Your task to perform on an android device: set the timer Image 0: 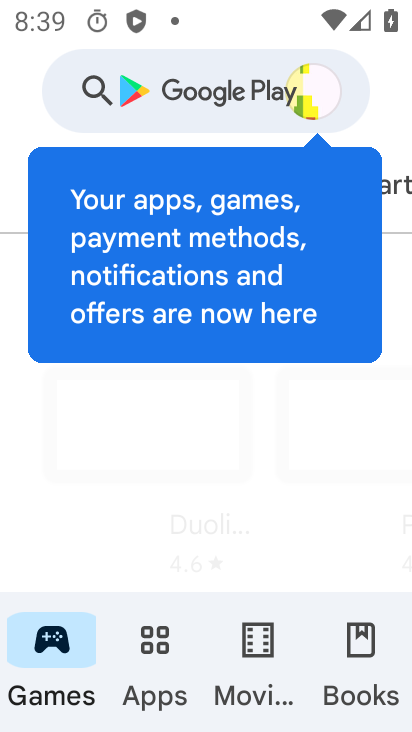
Step 0: drag from (280, 580) to (215, 112)
Your task to perform on an android device: set the timer Image 1: 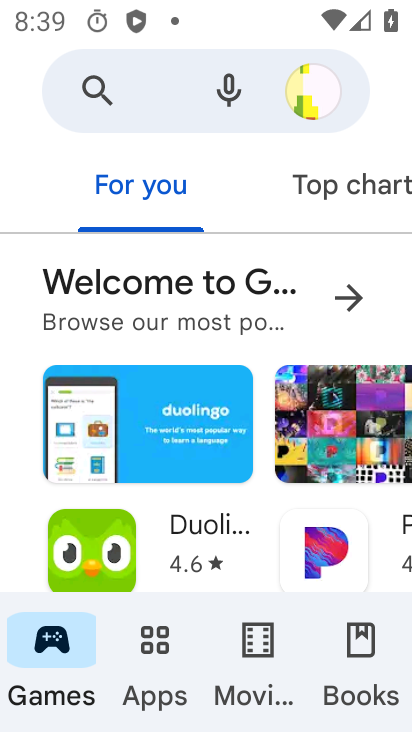
Step 1: press back button
Your task to perform on an android device: set the timer Image 2: 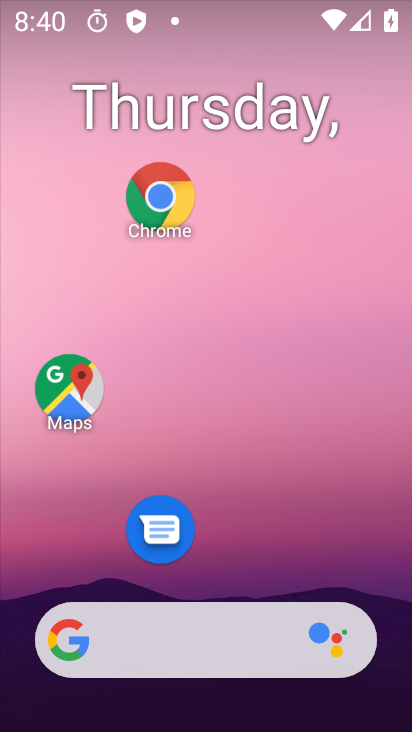
Step 2: click (244, 49)
Your task to perform on an android device: set the timer Image 3: 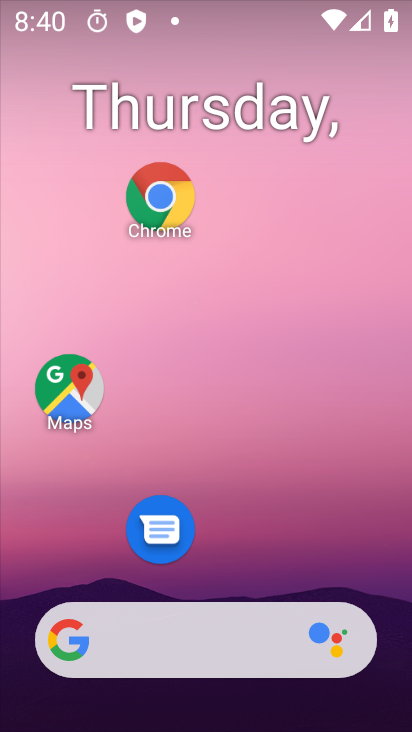
Step 3: drag from (289, 362) to (245, 6)
Your task to perform on an android device: set the timer Image 4: 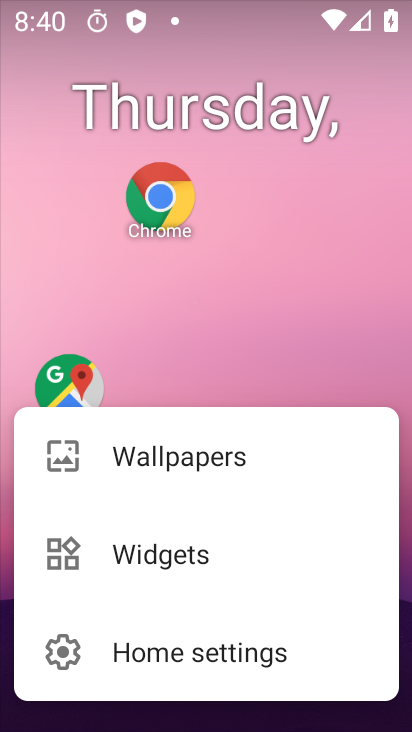
Step 4: click (187, 41)
Your task to perform on an android device: set the timer Image 5: 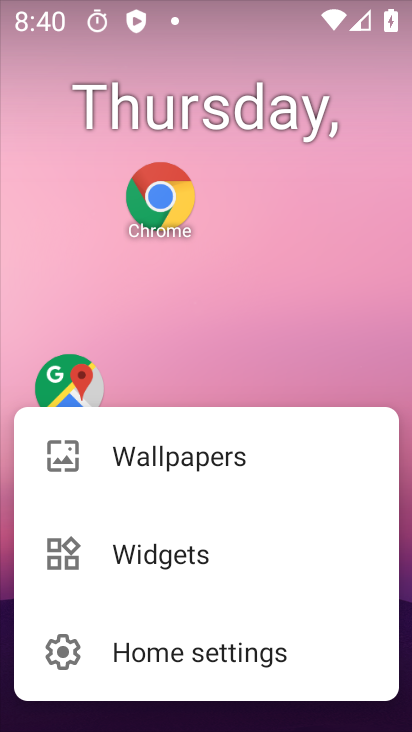
Step 5: drag from (246, 432) to (409, 346)
Your task to perform on an android device: set the timer Image 6: 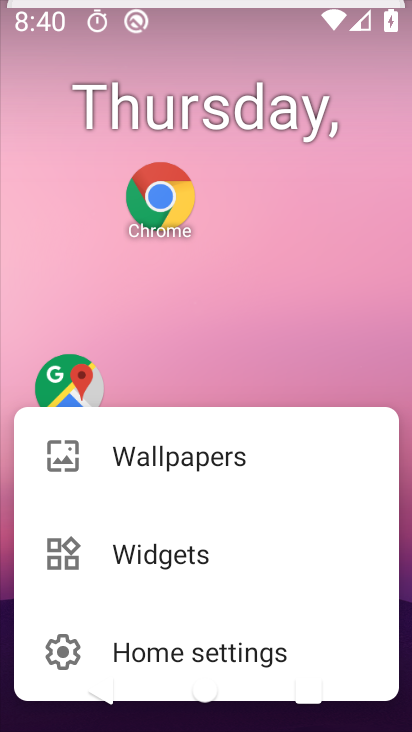
Step 6: drag from (277, 612) to (262, 138)
Your task to perform on an android device: set the timer Image 7: 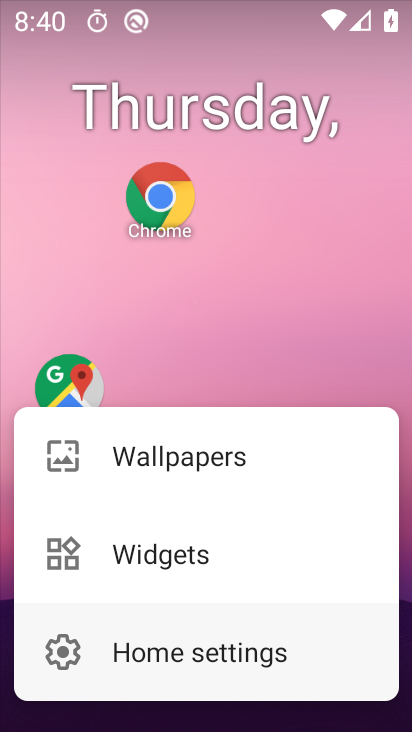
Step 7: drag from (337, 458) to (285, 67)
Your task to perform on an android device: set the timer Image 8: 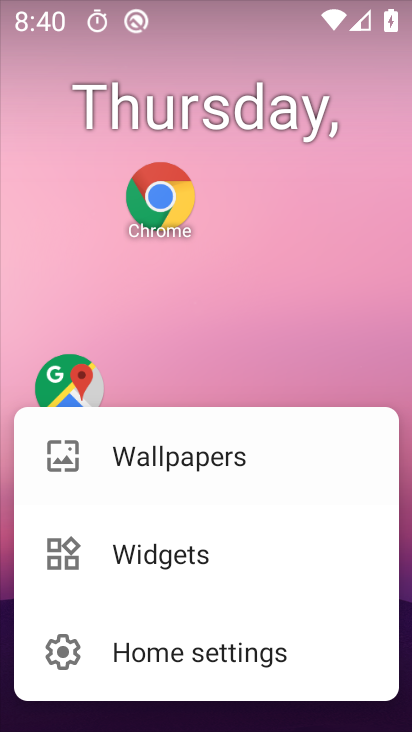
Step 8: drag from (330, 449) to (171, 16)
Your task to perform on an android device: set the timer Image 9: 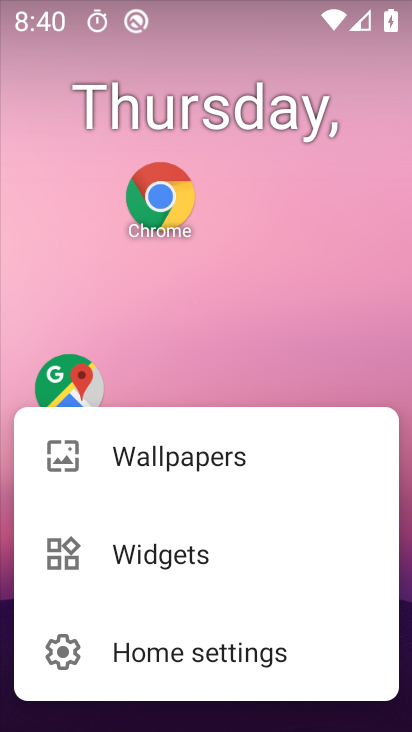
Step 9: drag from (246, 389) to (228, 245)
Your task to perform on an android device: set the timer Image 10: 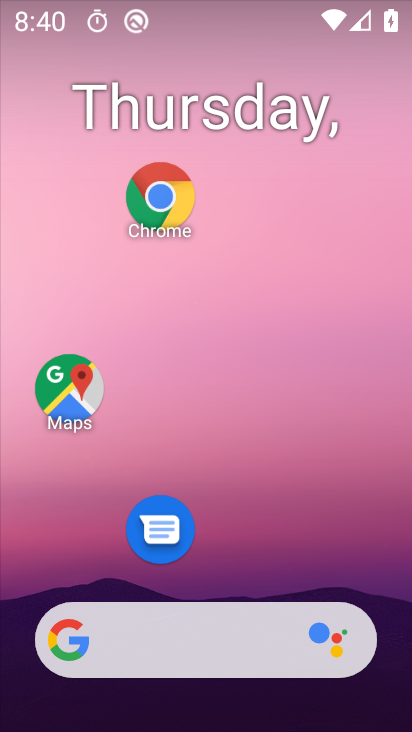
Step 10: drag from (251, 482) to (340, 36)
Your task to perform on an android device: set the timer Image 11: 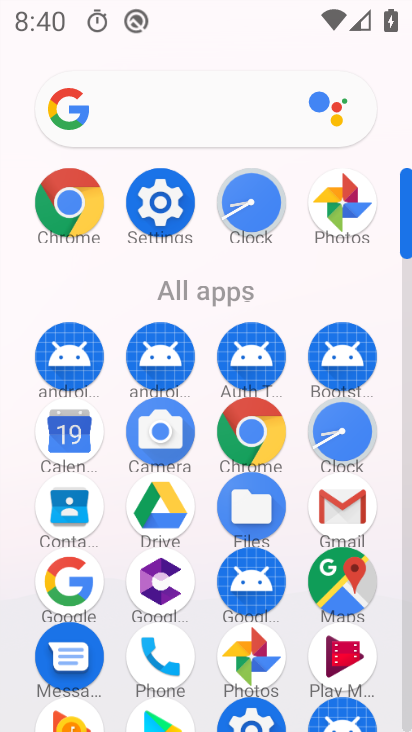
Step 11: click (253, 225)
Your task to perform on an android device: set the timer Image 12: 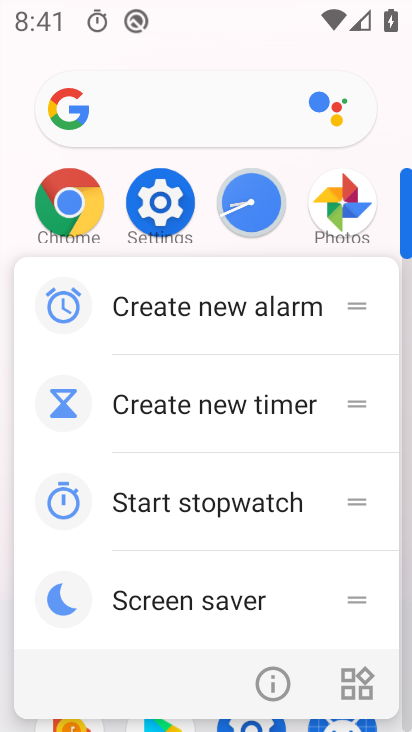
Step 12: click (256, 205)
Your task to perform on an android device: set the timer Image 13: 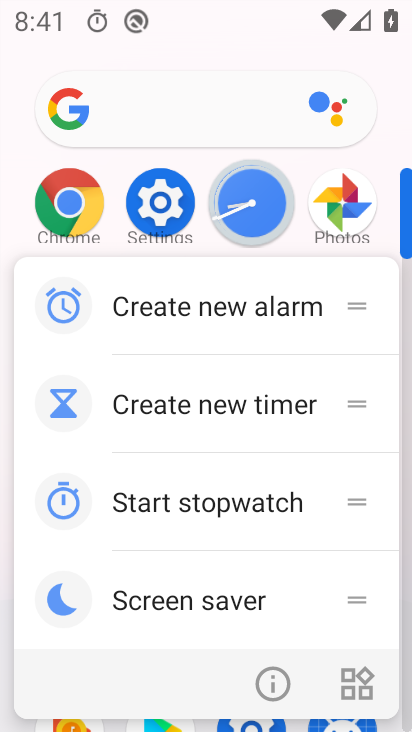
Step 13: click (256, 205)
Your task to perform on an android device: set the timer Image 14: 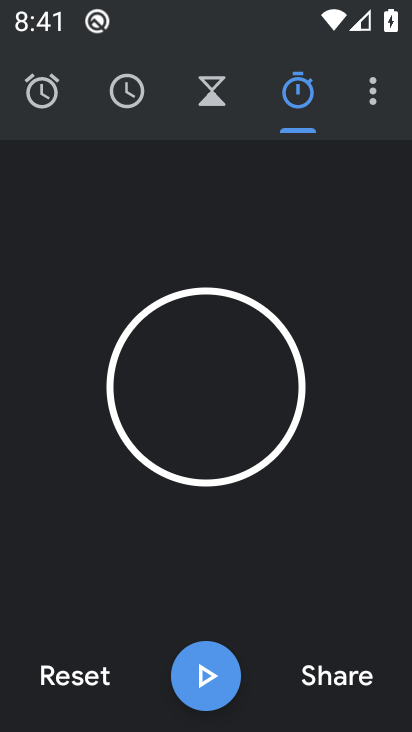
Step 14: click (205, 107)
Your task to perform on an android device: set the timer Image 15: 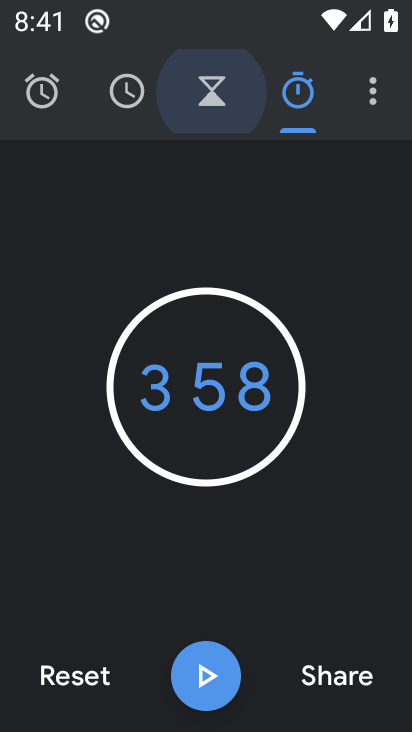
Step 15: click (205, 107)
Your task to perform on an android device: set the timer Image 16: 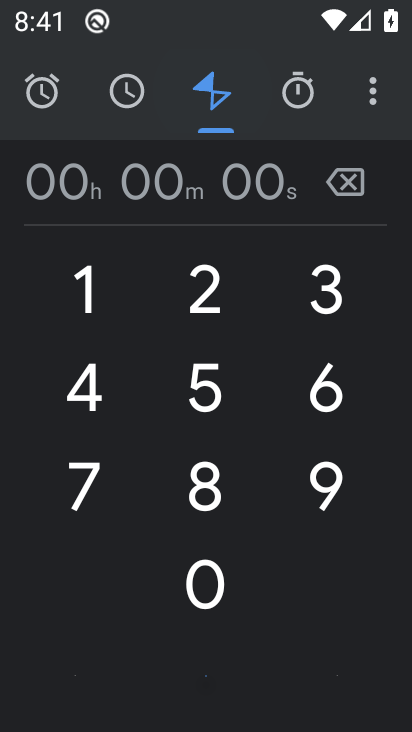
Step 16: click (207, 105)
Your task to perform on an android device: set the timer Image 17: 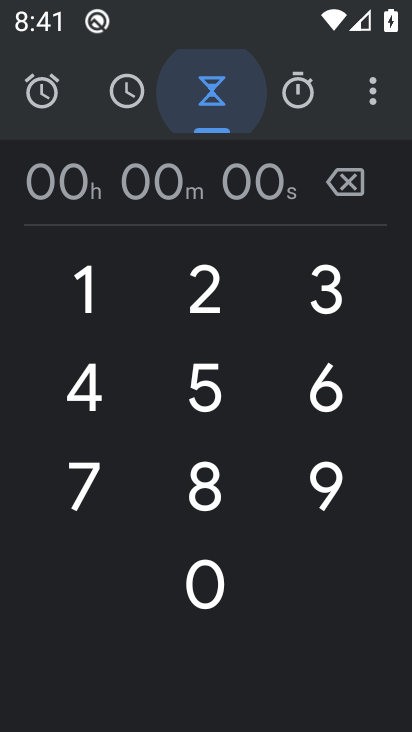
Step 17: click (207, 105)
Your task to perform on an android device: set the timer Image 18: 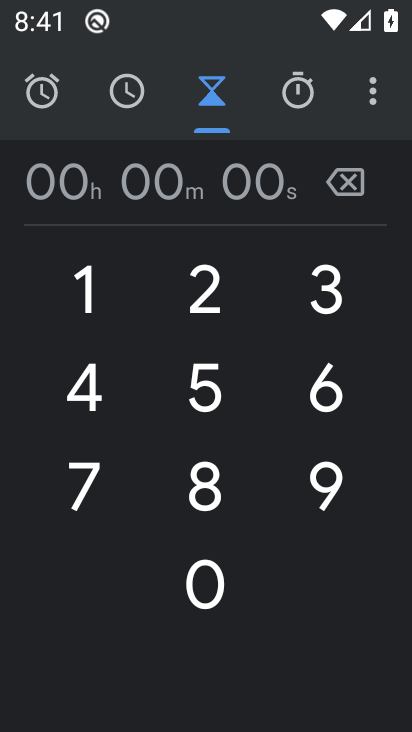
Step 18: click (213, 482)
Your task to perform on an android device: set the timer Image 19: 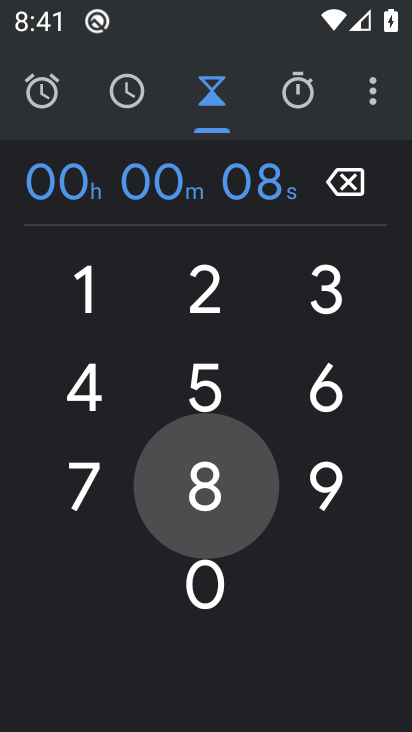
Step 19: click (213, 482)
Your task to perform on an android device: set the timer Image 20: 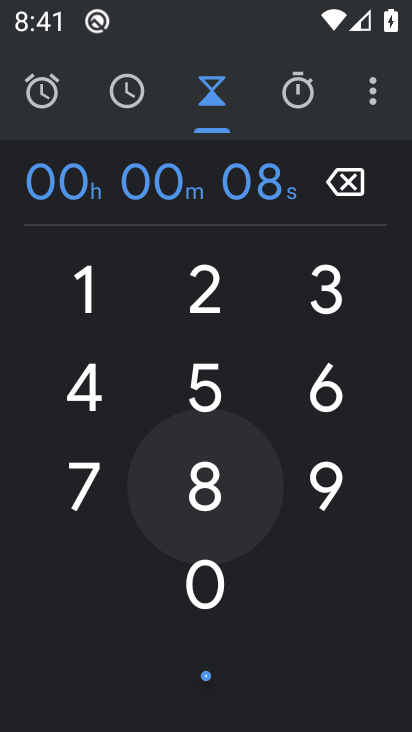
Step 20: click (213, 482)
Your task to perform on an android device: set the timer Image 21: 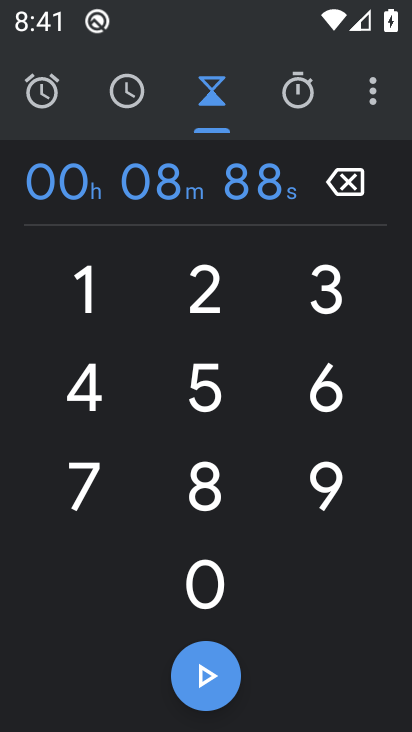
Step 21: click (205, 682)
Your task to perform on an android device: set the timer Image 22: 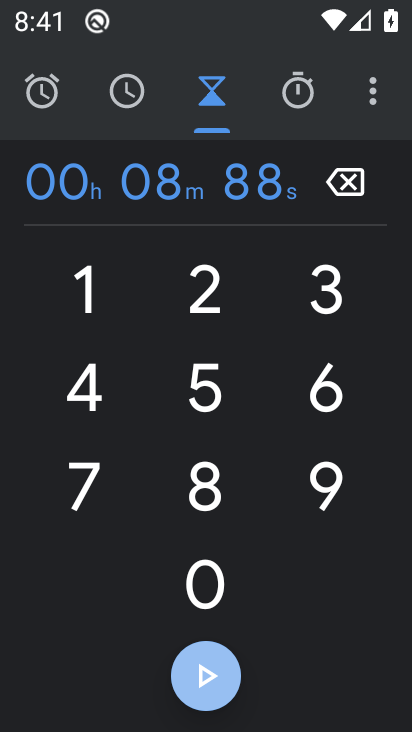
Step 22: click (206, 681)
Your task to perform on an android device: set the timer Image 23: 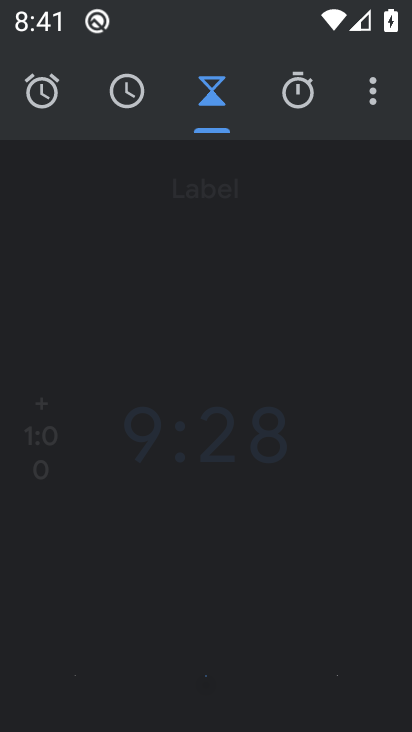
Step 23: click (206, 681)
Your task to perform on an android device: set the timer Image 24: 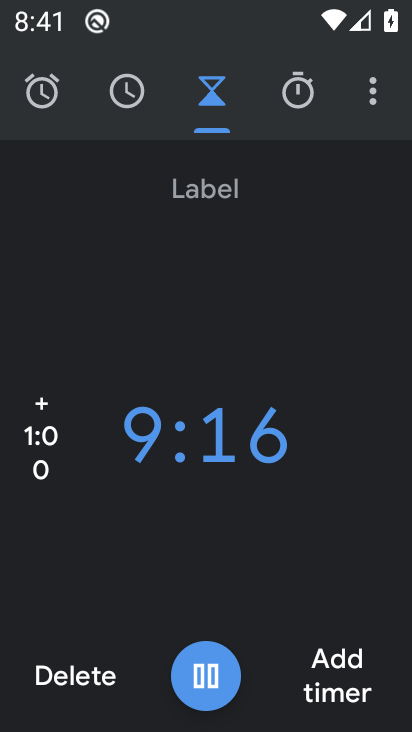
Step 24: click (206, 669)
Your task to perform on an android device: set the timer Image 25: 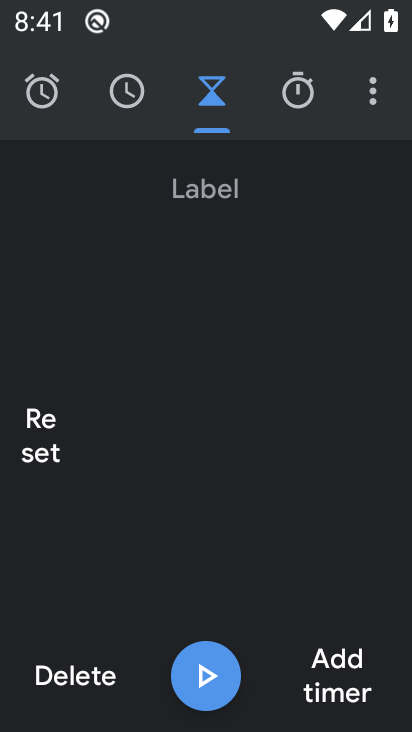
Step 25: click (206, 670)
Your task to perform on an android device: set the timer Image 26: 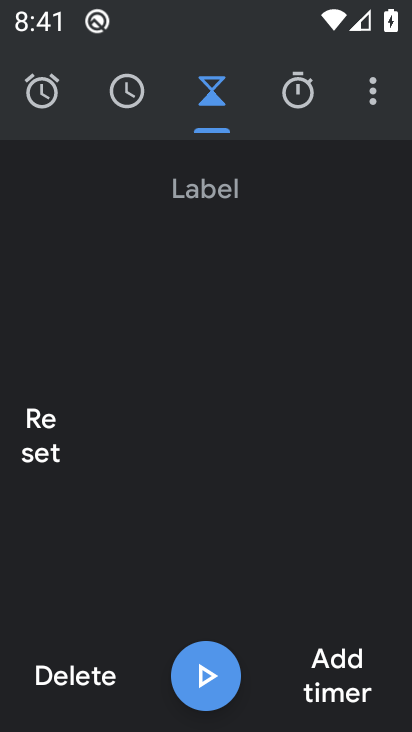
Step 26: click (206, 670)
Your task to perform on an android device: set the timer Image 27: 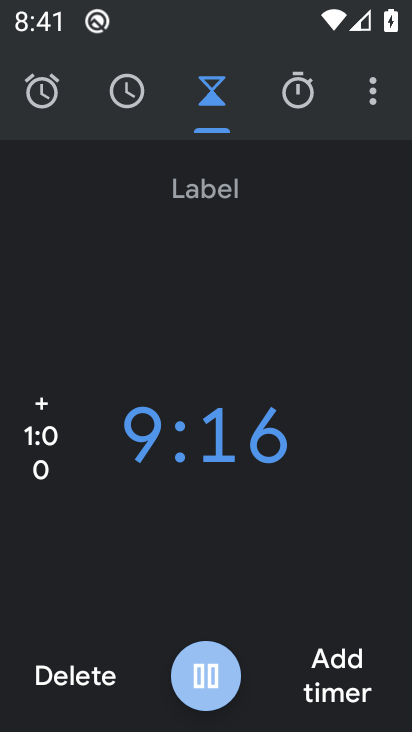
Step 27: click (206, 670)
Your task to perform on an android device: set the timer Image 28: 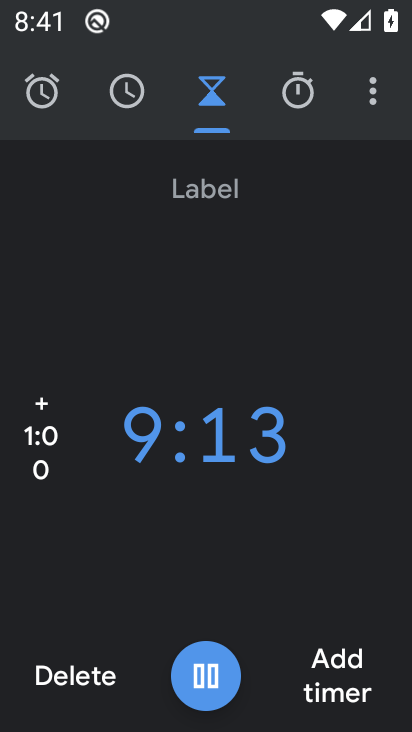
Step 28: click (206, 669)
Your task to perform on an android device: set the timer Image 29: 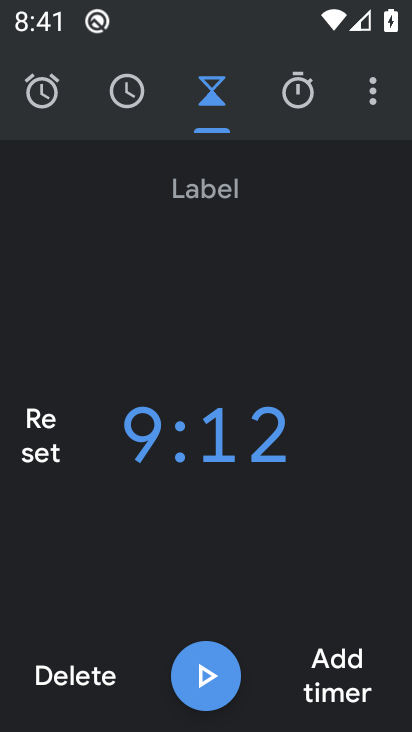
Step 29: click (334, 675)
Your task to perform on an android device: set the timer Image 30: 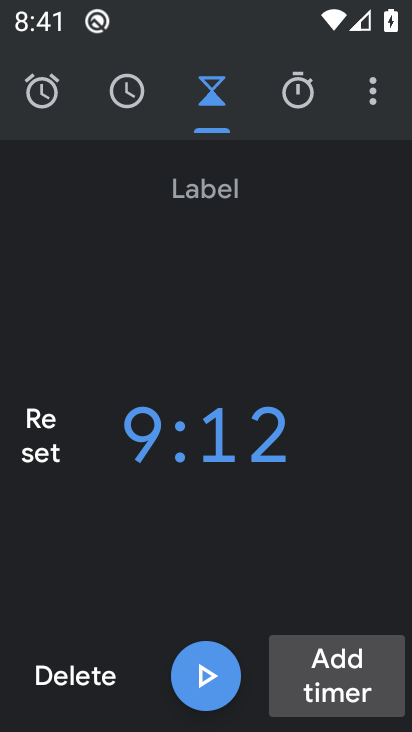
Step 30: click (334, 675)
Your task to perform on an android device: set the timer Image 31: 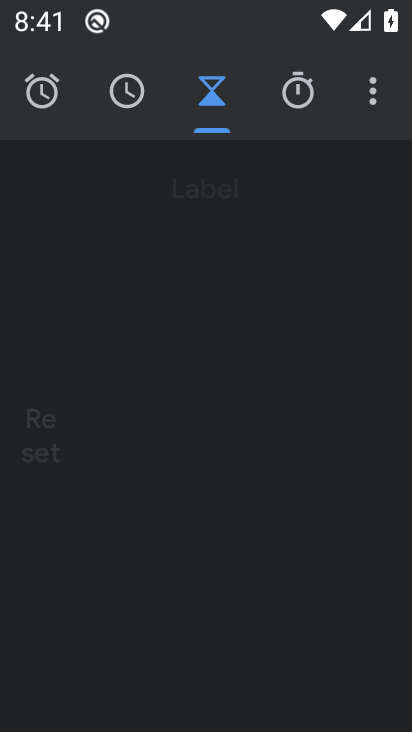
Step 31: click (334, 679)
Your task to perform on an android device: set the timer Image 32: 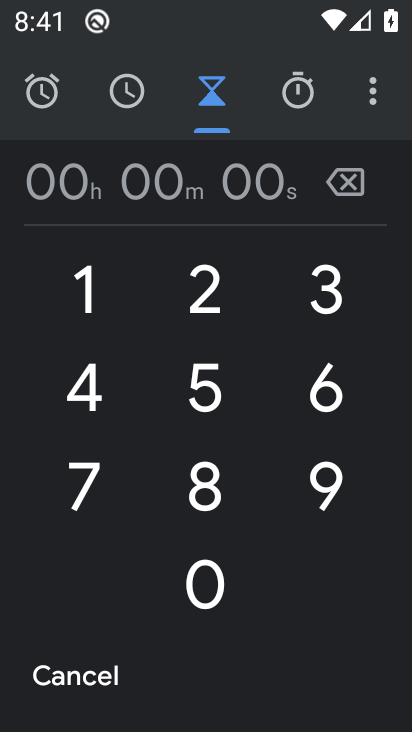
Step 32: click (215, 478)
Your task to perform on an android device: set the timer Image 33: 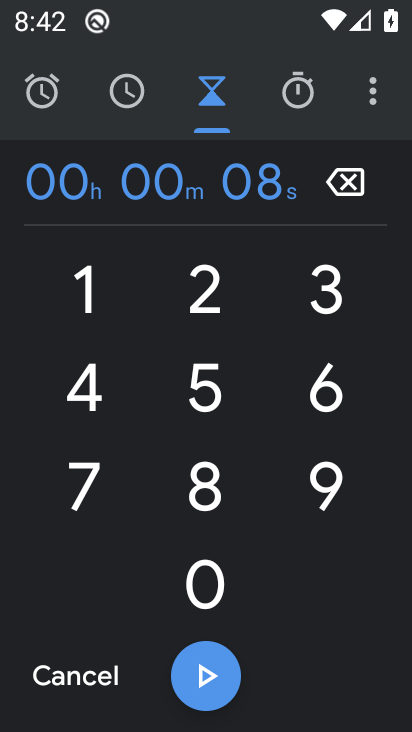
Step 33: click (210, 680)
Your task to perform on an android device: set the timer Image 34: 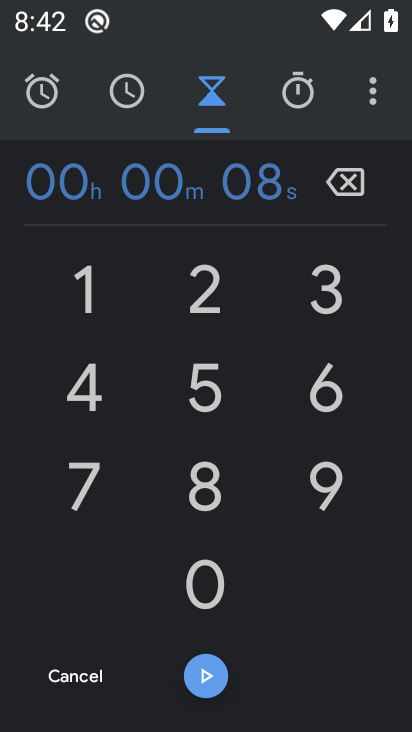
Step 34: click (210, 679)
Your task to perform on an android device: set the timer Image 35: 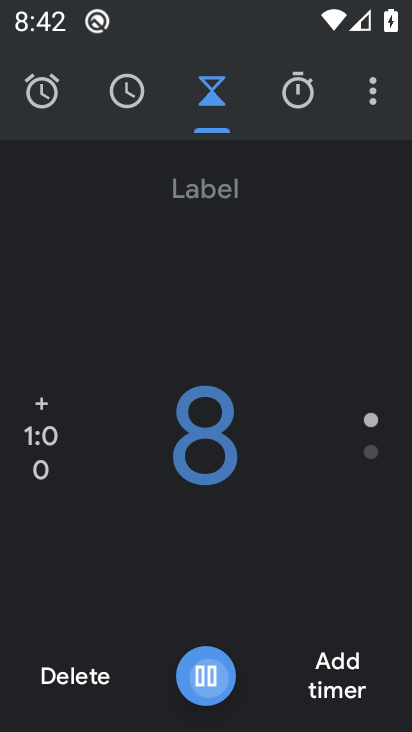
Step 35: click (210, 679)
Your task to perform on an android device: set the timer Image 36: 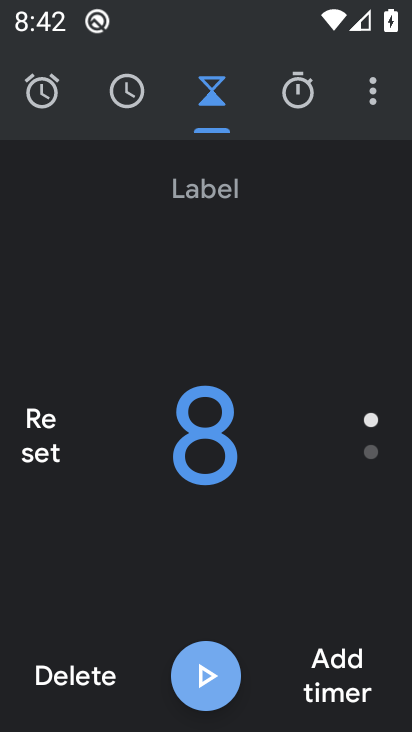
Step 36: click (210, 678)
Your task to perform on an android device: set the timer Image 37: 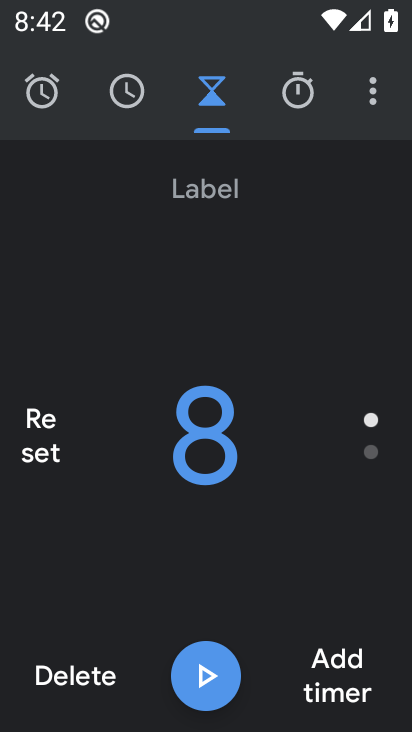
Step 37: click (212, 676)
Your task to perform on an android device: set the timer Image 38: 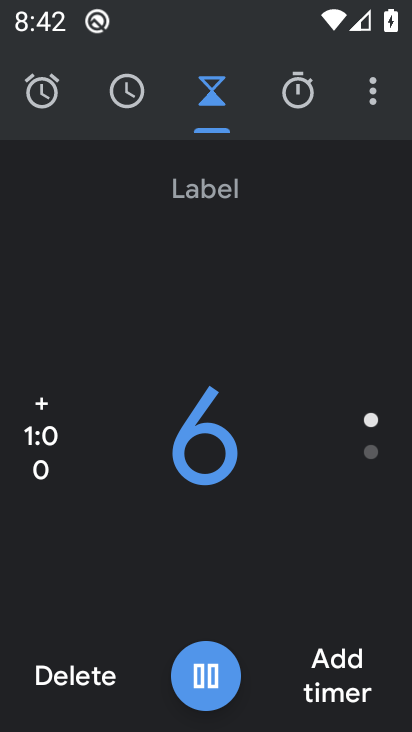
Step 38: click (204, 682)
Your task to perform on an android device: set the timer Image 39: 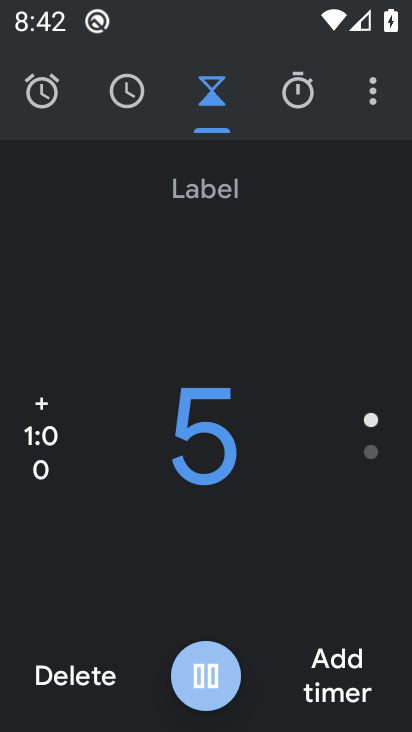
Step 39: click (205, 681)
Your task to perform on an android device: set the timer Image 40: 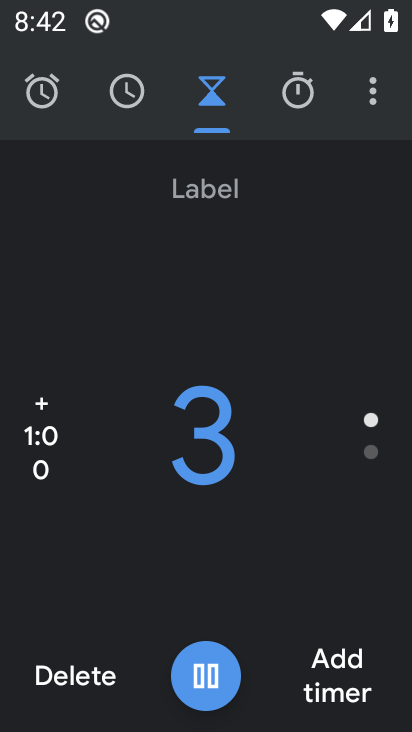
Step 40: click (336, 686)
Your task to perform on an android device: set the timer Image 41: 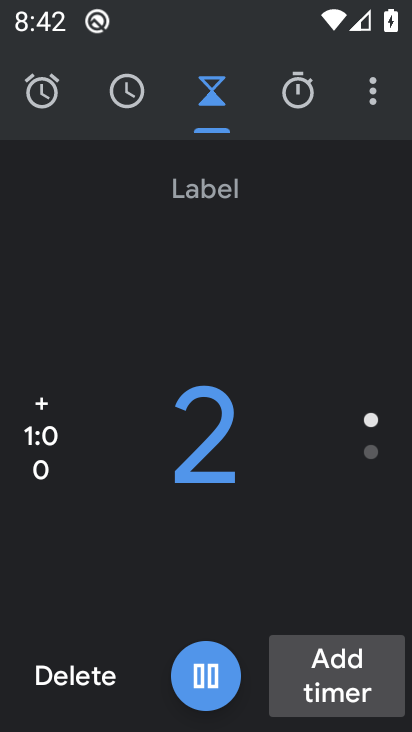
Step 41: click (336, 686)
Your task to perform on an android device: set the timer Image 42: 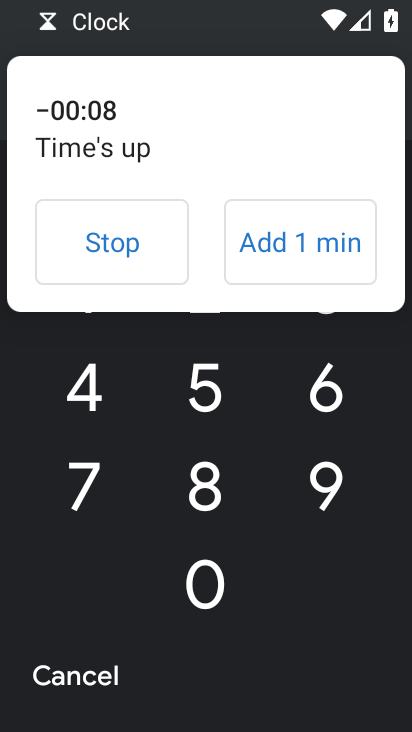
Step 42: task complete